Your task to perform on an android device: change notification settings in the gmail app Image 0: 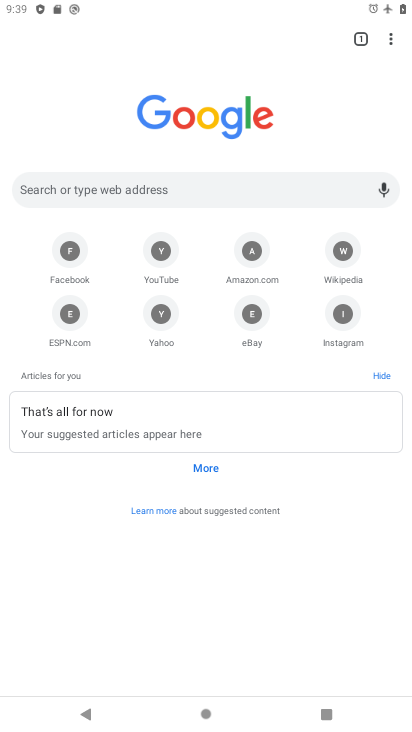
Step 0: press home button
Your task to perform on an android device: change notification settings in the gmail app Image 1: 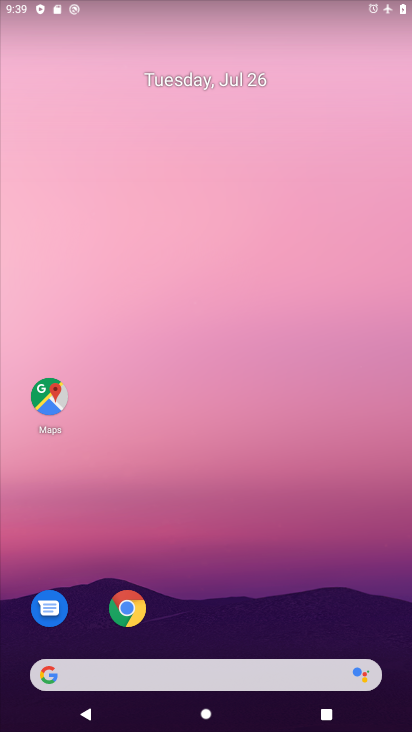
Step 1: drag from (175, 693) to (175, 159)
Your task to perform on an android device: change notification settings in the gmail app Image 2: 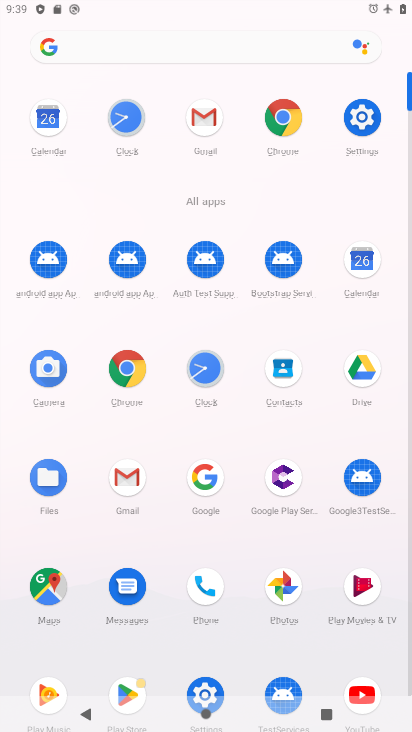
Step 2: click (135, 482)
Your task to perform on an android device: change notification settings in the gmail app Image 3: 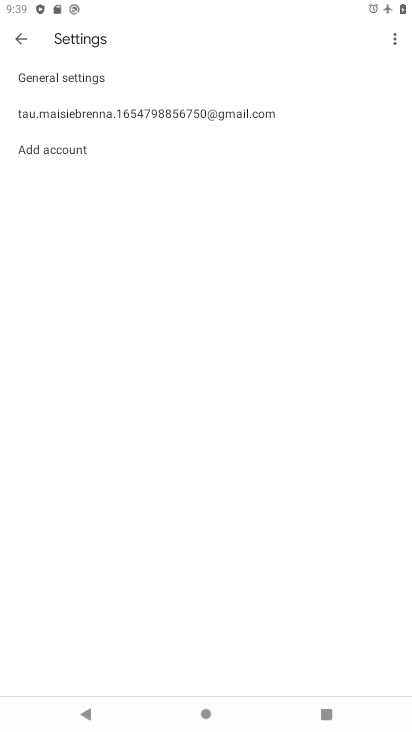
Step 3: click (185, 111)
Your task to perform on an android device: change notification settings in the gmail app Image 4: 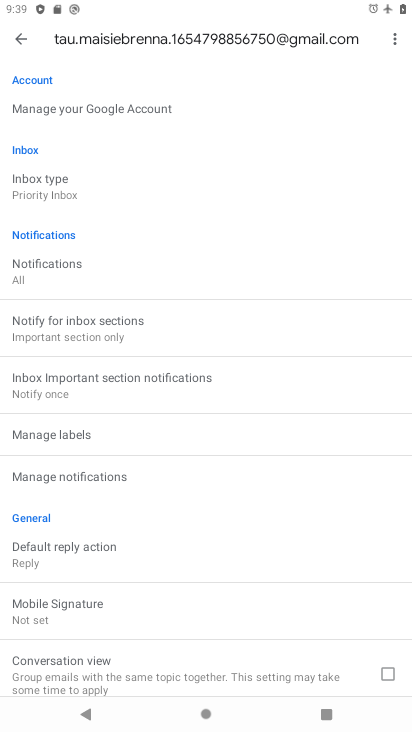
Step 4: click (11, 267)
Your task to perform on an android device: change notification settings in the gmail app Image 5: 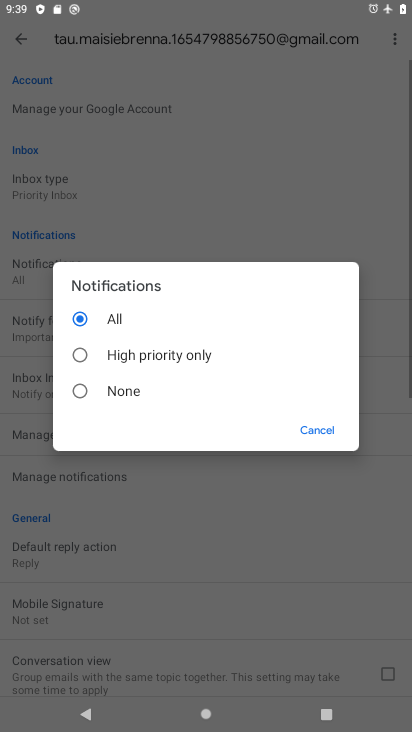
Step 5: click (78, 388)
Your task to perform on an android device: change notification settings in the gmail app Image 6: 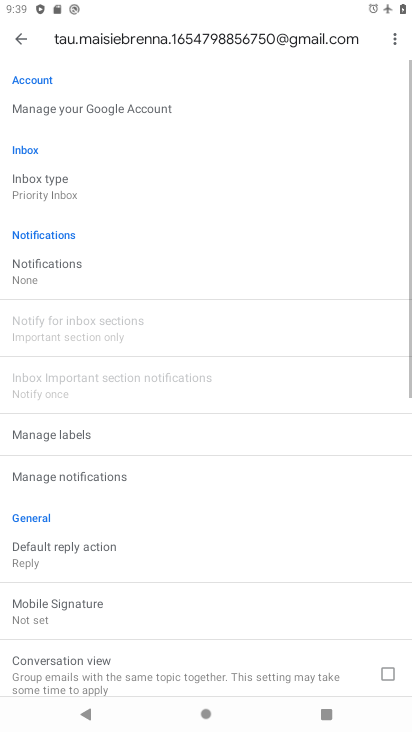
Step 6: task complete